Your task to perform on an android device: visit the assistant section in the google photos Image 0: 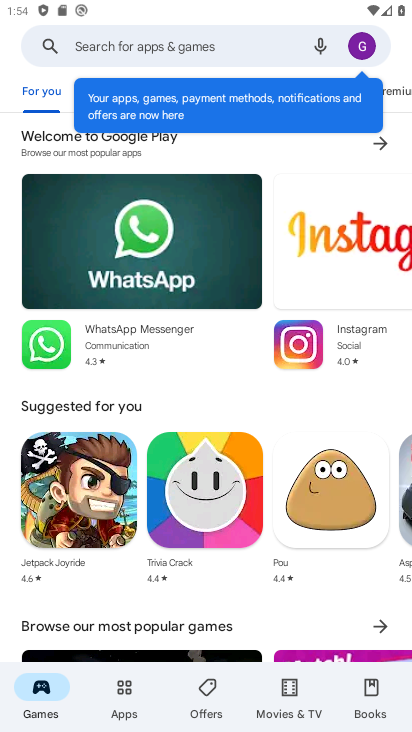
Step 0: press home button
Your task to perform on an android device: visit the assistant section in the google photos Image 1: 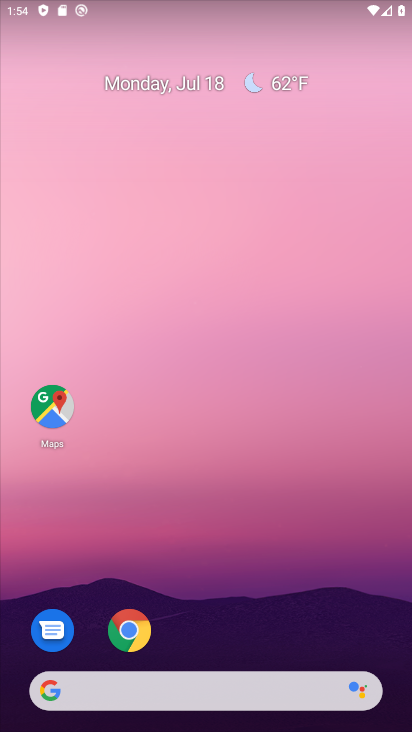
Step 1: drag from (182, 647) to (340, 7)
Your task to perform on an android device: visit the assistant section in the google photos Image 2: 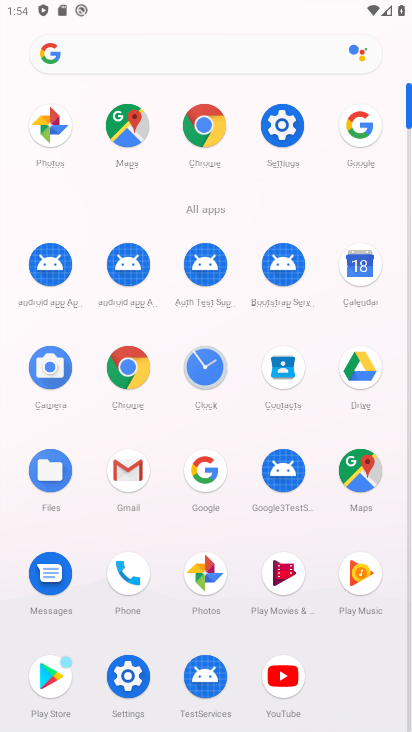
Step 2: click (212, 572)
Your task to perform on an android device: visit the assistant section in the google photos Image 3: 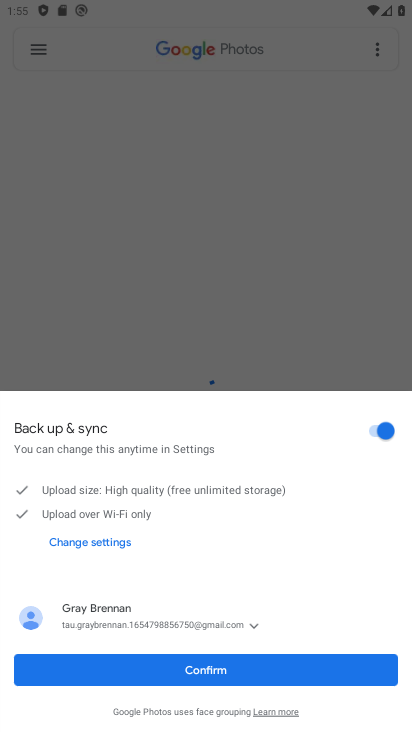
Step 3: click (223, 671)
Your task to perform on an android device: visit the assistant section in the google photos Image 4: 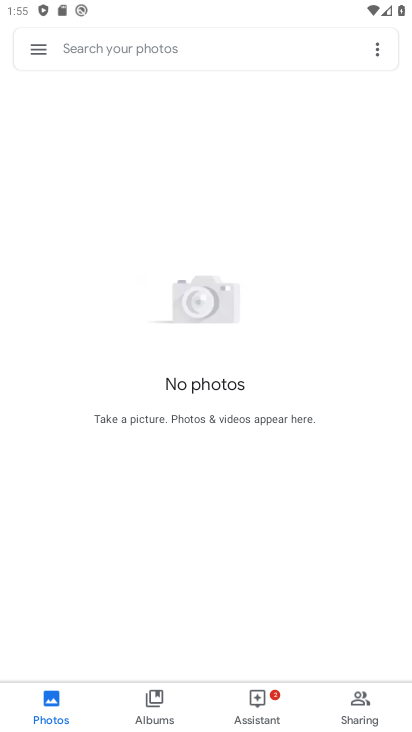
Step 4: click (355, 698)
Your task to perform on an android device: visit the assistant section in the google photos Image 5: 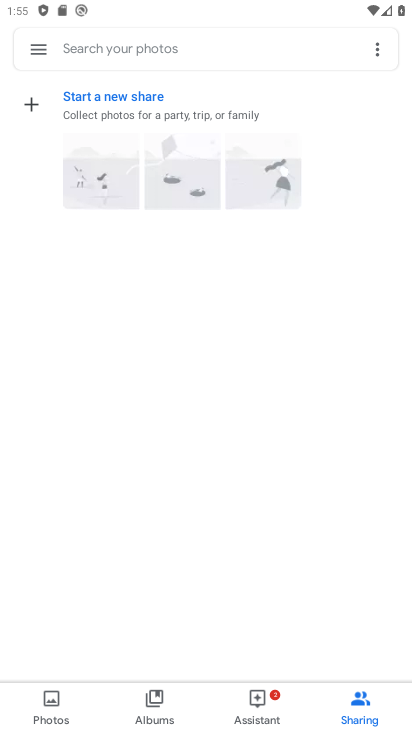
Step 5: click (265, 705)
Your task to perform on an android device: visit the assistant section in the google photos Image 6: 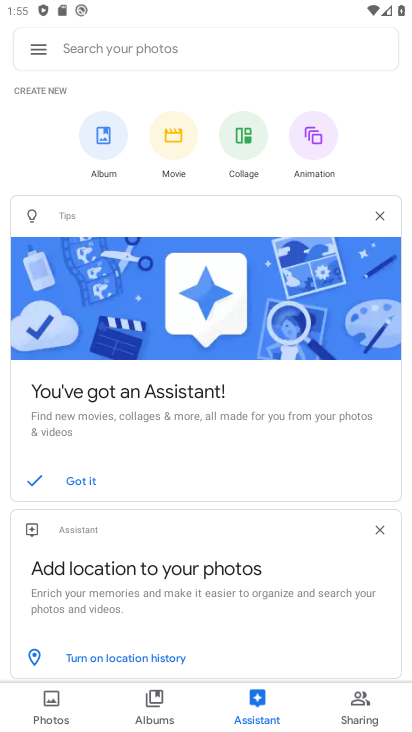
Step 6: task complete